Your task to perform on an android device: turn off javascript in the chrome app Image 0: 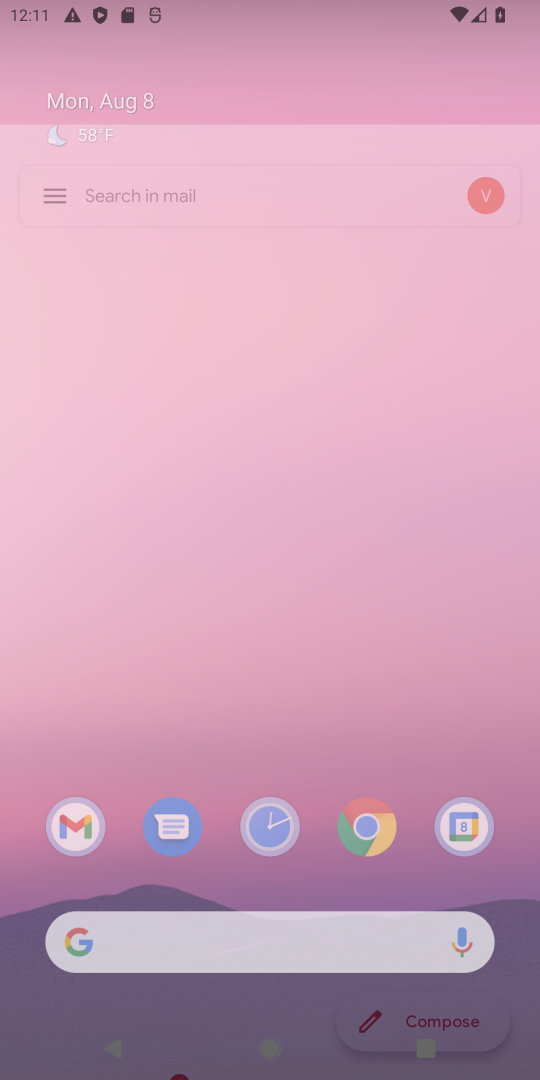
Step 0: press home button
Your task to perform on an android device: turn off javascript in the chrome app Image 1: 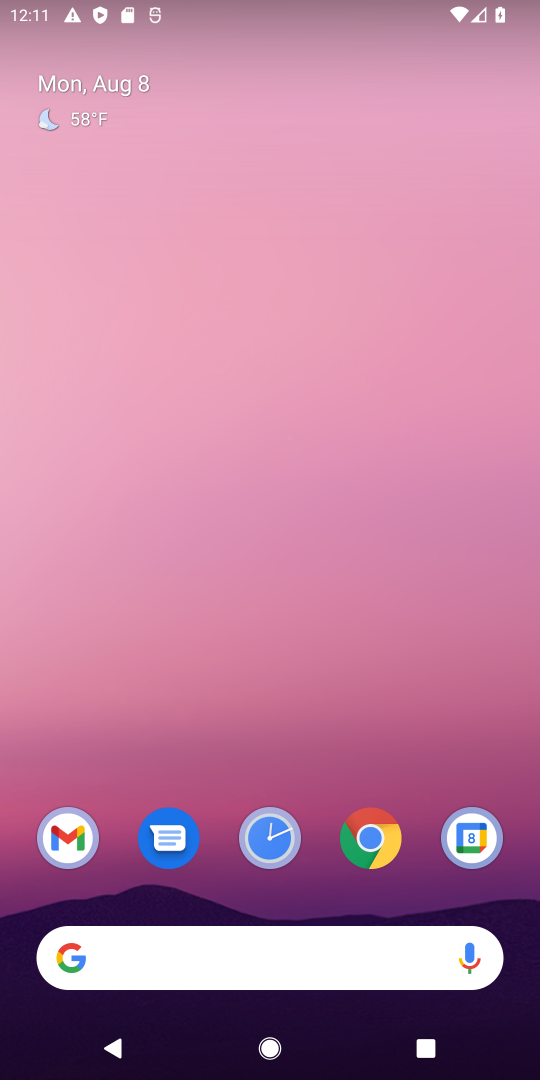
Step 1: drag from (319, 801) to (388, 172)
Your task to perform on an android device: turn off javascript in the chrome app Image 2: 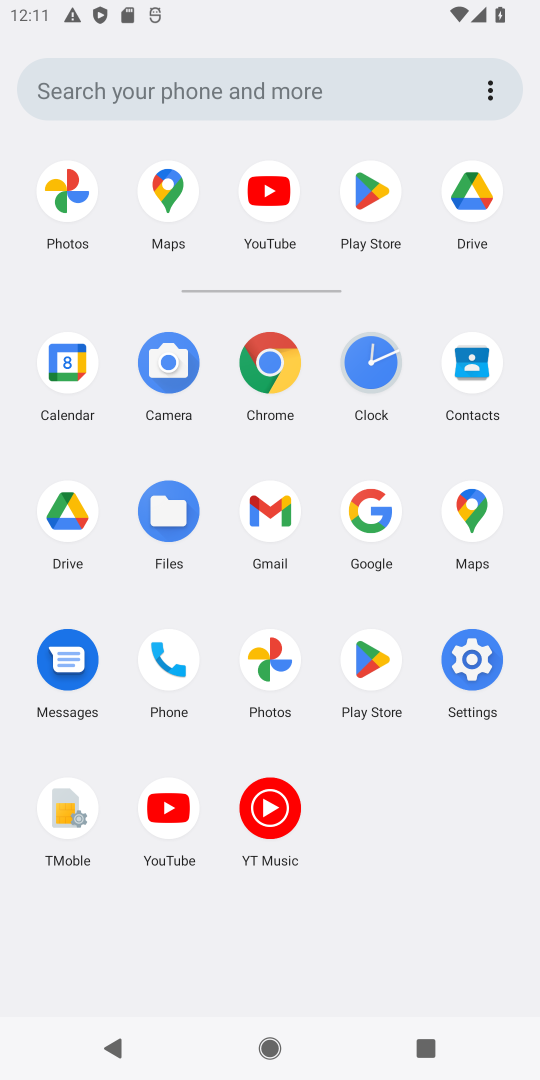
Step 2: click (275, 364)
Your task to perform on an android device: turn off javascript in the chrome app Image 3: 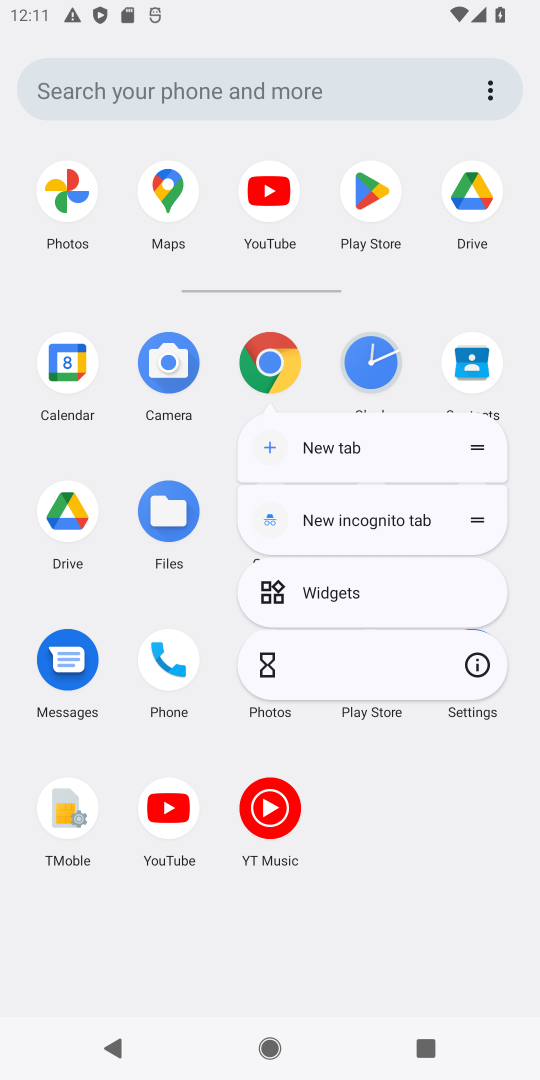
Step 3: click (275, 364)
Your task to perform on an android device: turn off javascript in the chrome app Image 4: 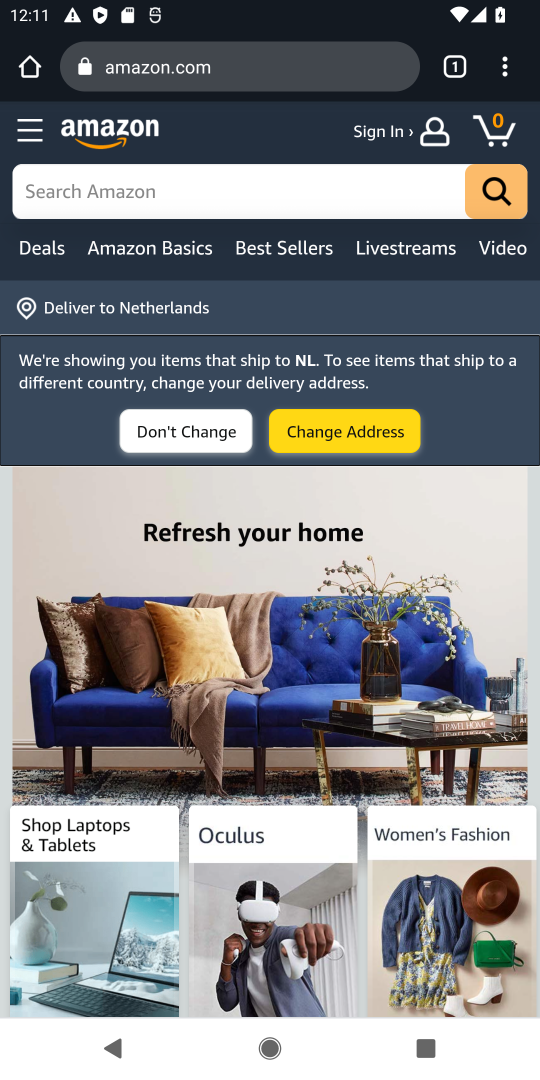
Step 4: drag from (501, 82) to (305, 843)
Your task to perform on an android device: turn off javascript in the chrome app Image 5: 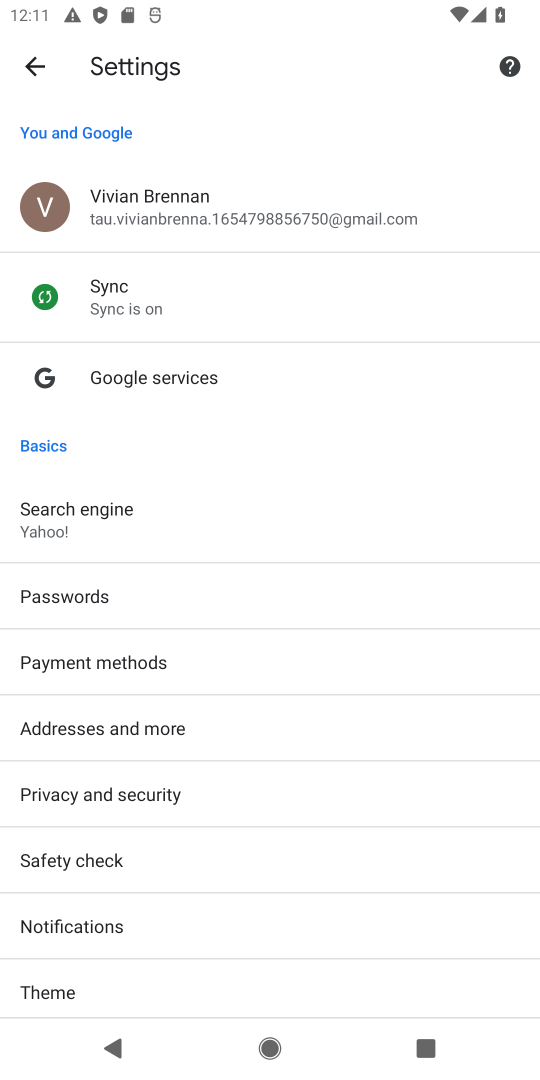
Step 5: drag from (263, 961) to (247, 358)
Your task to perform on an android device: turn off javascript in the chrome app Image 6: 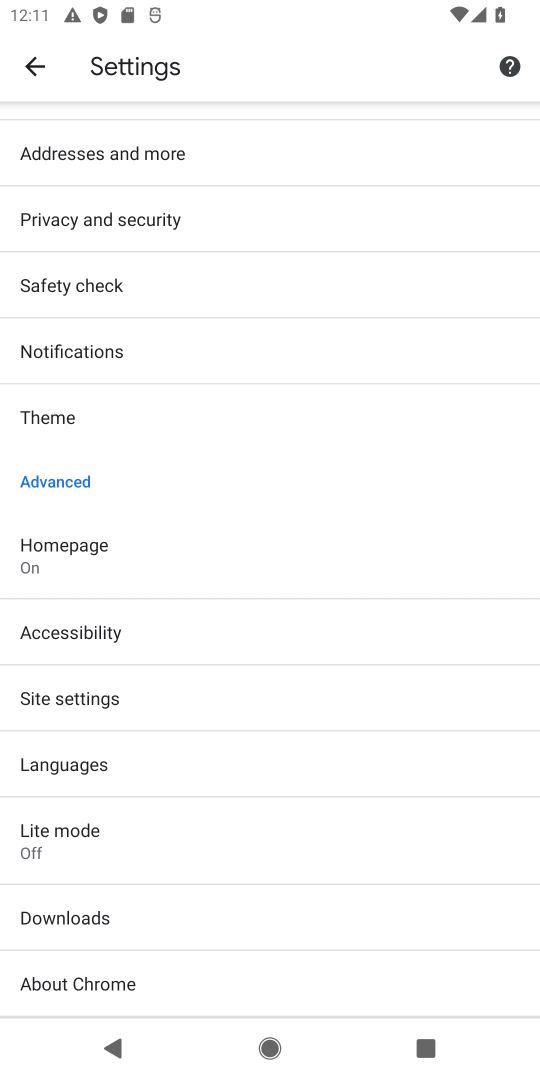
Step 6: click (49, 699)
Your task to perform on an android device: turn off javascript in the chrome app Image 7: 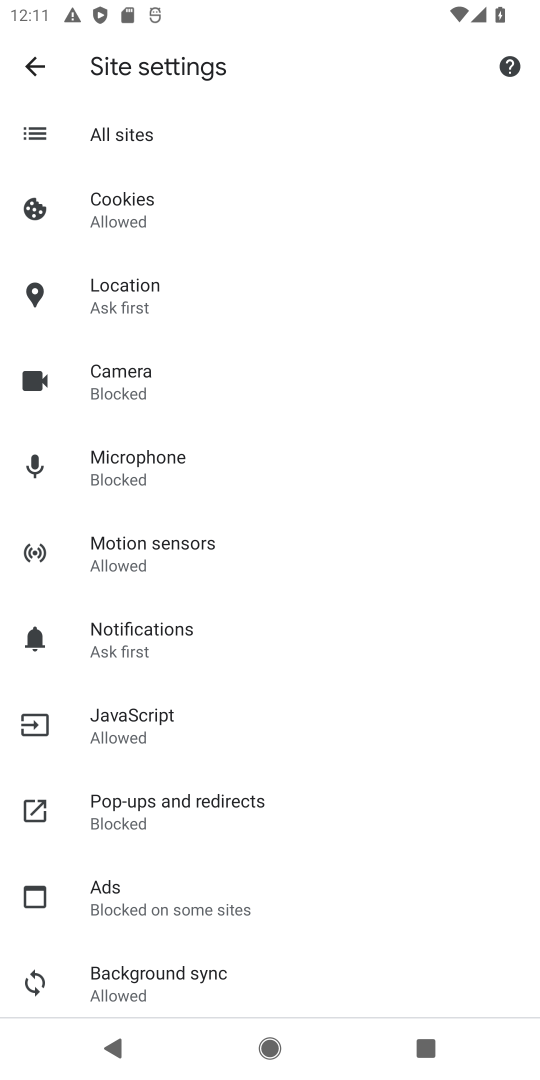
Step 7: click (111, 724)
Your task to perform on an android device: turn off javascript in the chrome app Image 8: 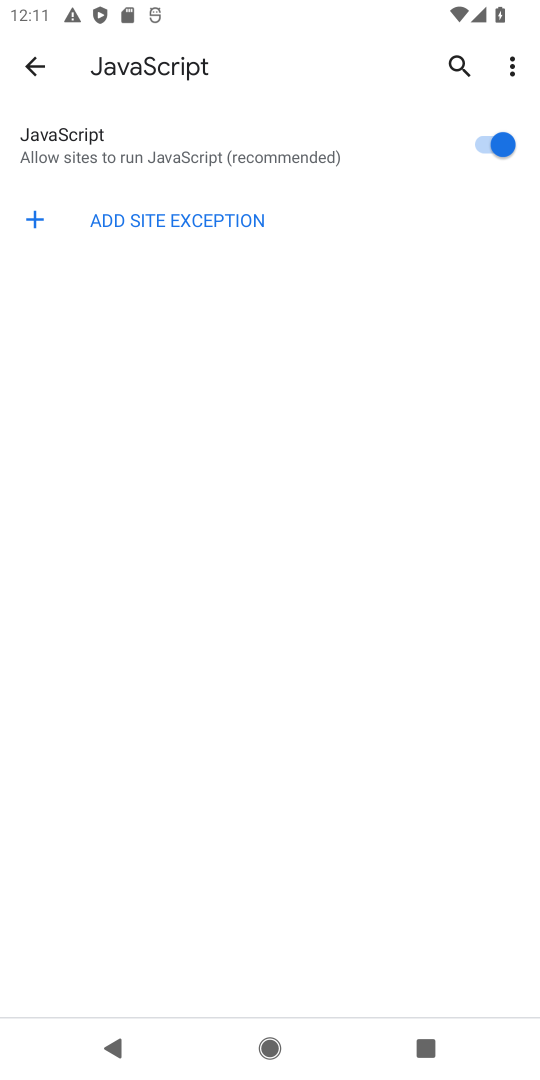
Step 8: click (499, 142)
Your task to perform on an android device: turn off javascript in the chrome app Image 9: 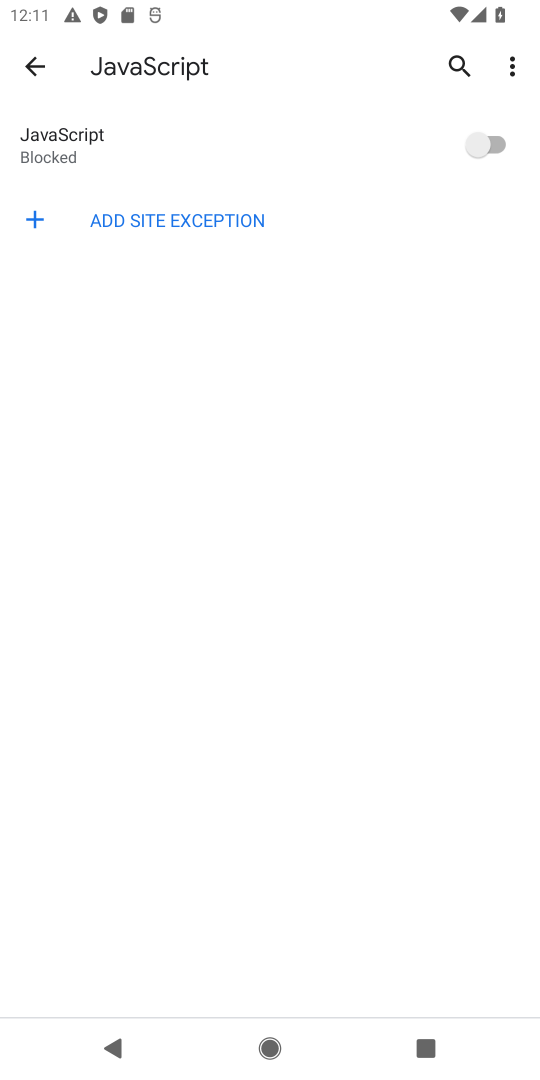
Step 9: task complete